Your task to perform on an android device: turn on airplane mode Image 0: 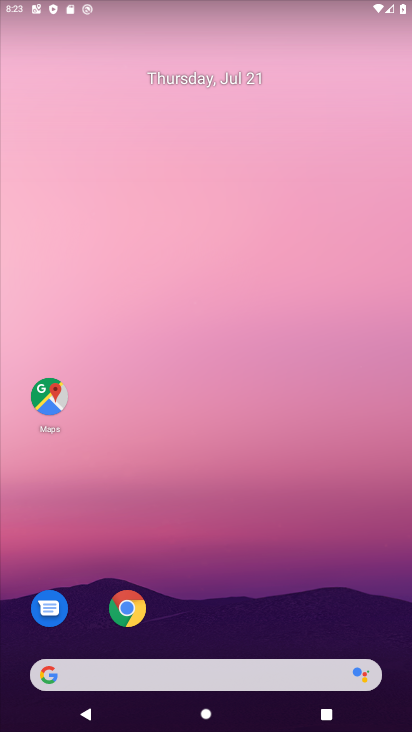
Step 0: drag from (75, 599) to (249, 144)
Your task to perform on an android device: turn on airplane mode Image 1: 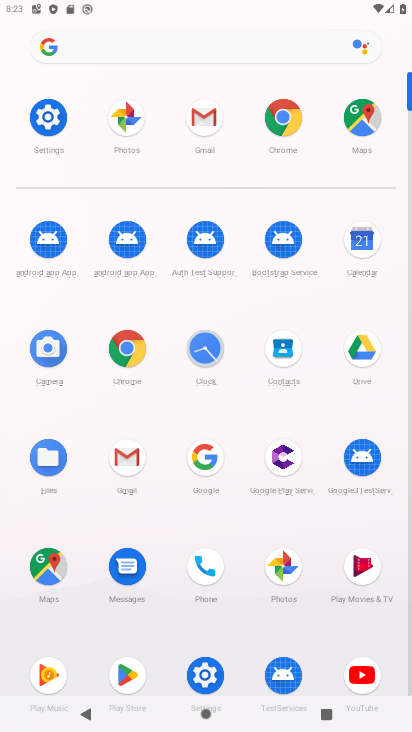
Step 1: click (203, 676)
Your task to perform on an android device: turn on airplane mode Image 2: 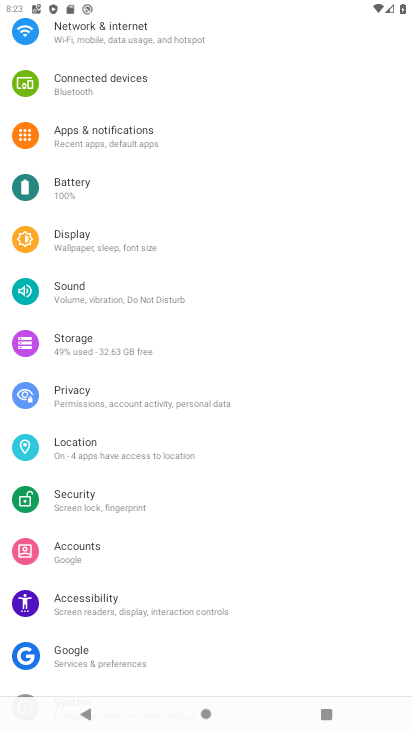
Step 2: click (117, 34)
Your task to perform on an android device: turn on airplane mode Image 3: 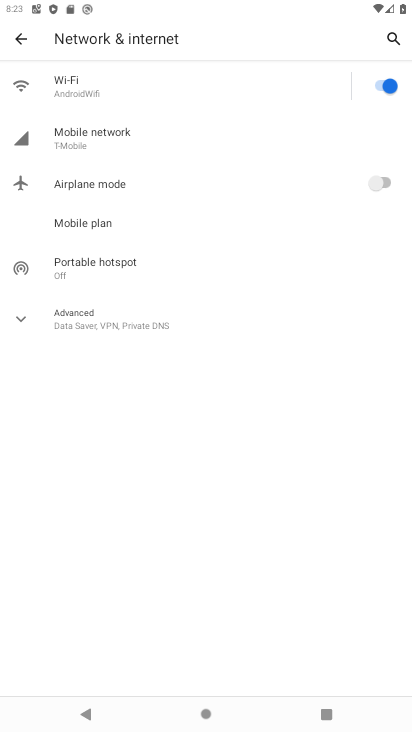
Step 3: click (385, 183)
Your task to perform on an android device: turn on airplane mode Image 4: 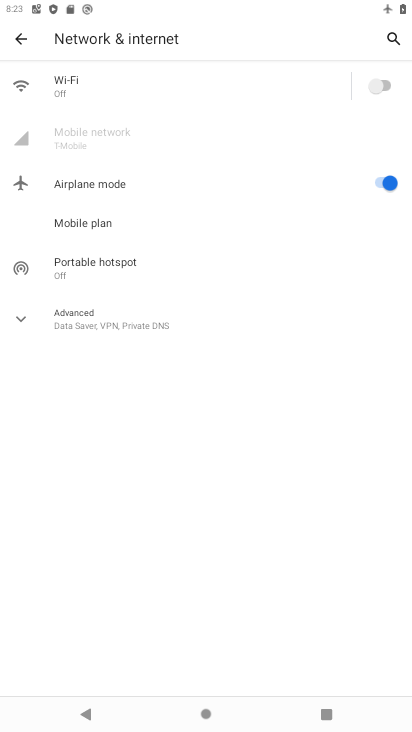
Step 4: task complete